Your task to perform on an android device: change alarm snooze length Image 0: 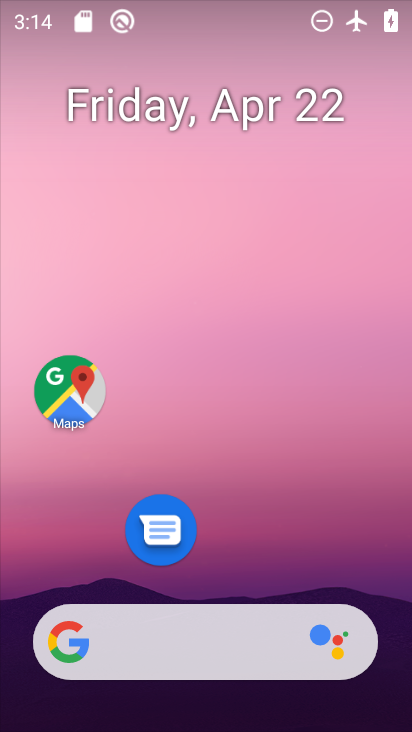
Step 0: drag from (244, 554) to (256, 12)
Your task to perform on an android device: change alarm snooze length Image 1: 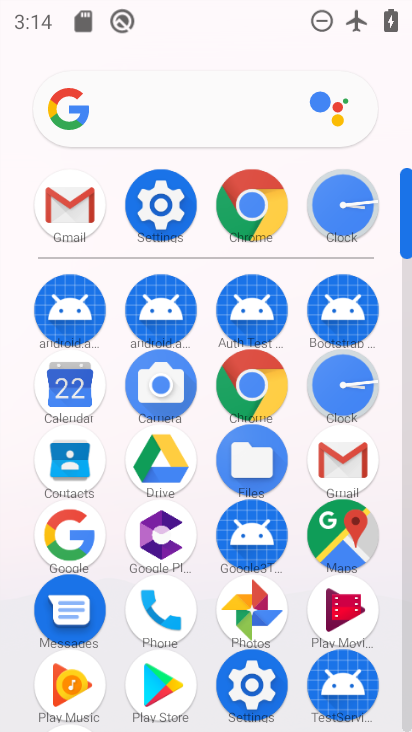
Step 1: click (344, 213)
Your task to perform on an android device: change alarm snooze length Image 2: 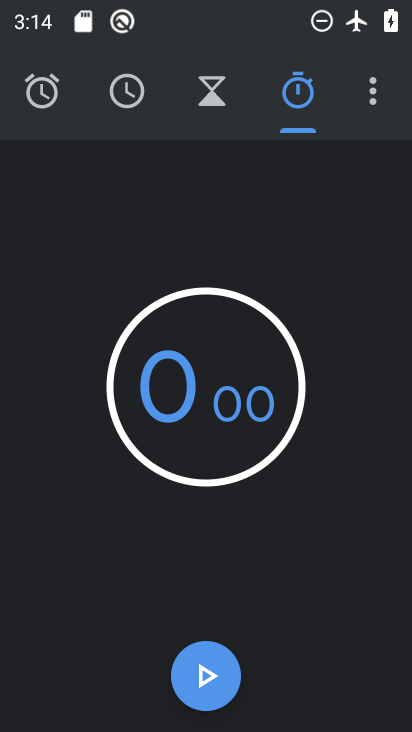
Step 2: click (371, 97)
Your task to perform on an android device: change alarm snooze length Image 3: 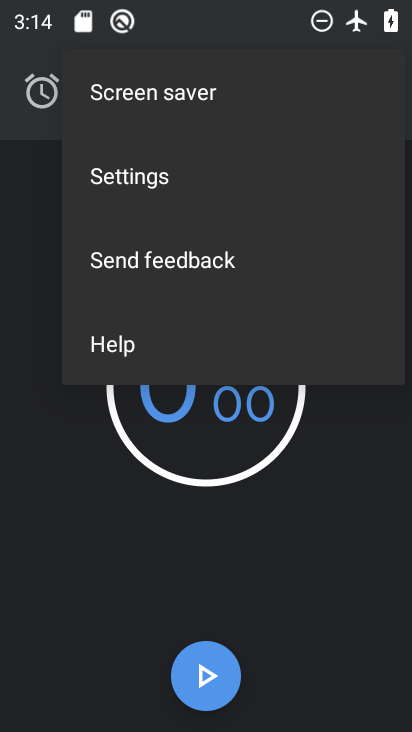
Step 3: click (130, 174)
Your task to perform on an android device: change alarm snooze length Image 4: 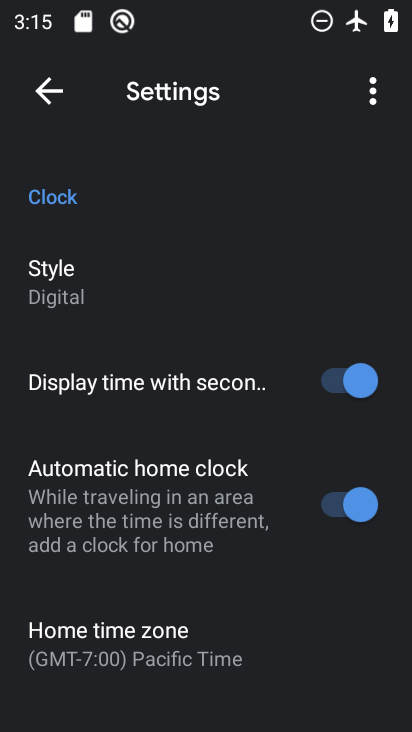
Step 4: drag from (187, 586) to (176, 199)
Your task to perform on an android device: change alarm snooze length Image 5: 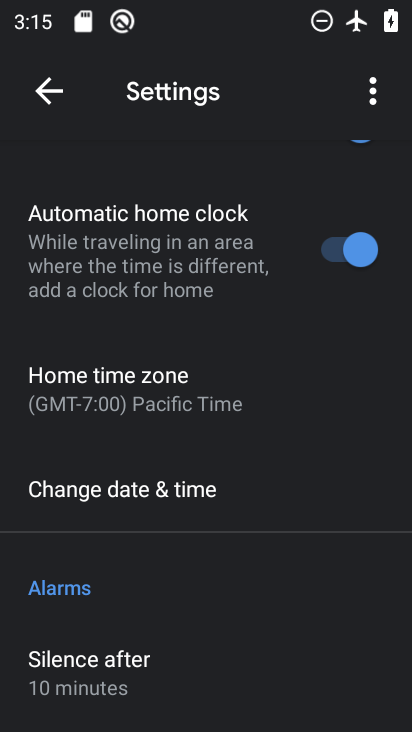
Step 5: drag from (133, 508) to (81, 161)
Your task to perform on an android device: change alarm snooze length Image 6: 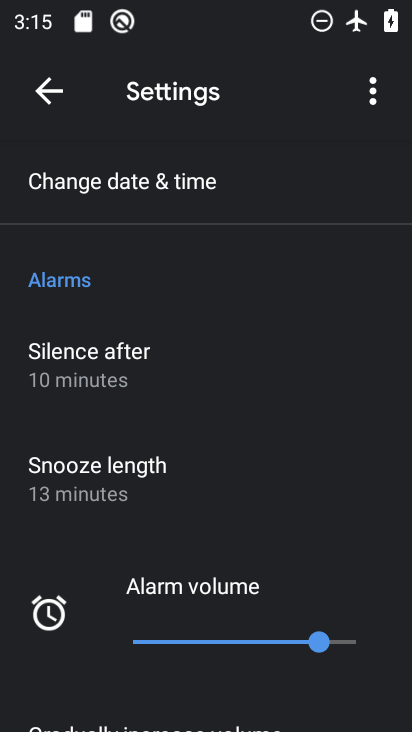
Step 6: click (81, 460)
Your task to perform on an android device: change alarm snooze length Image 7: 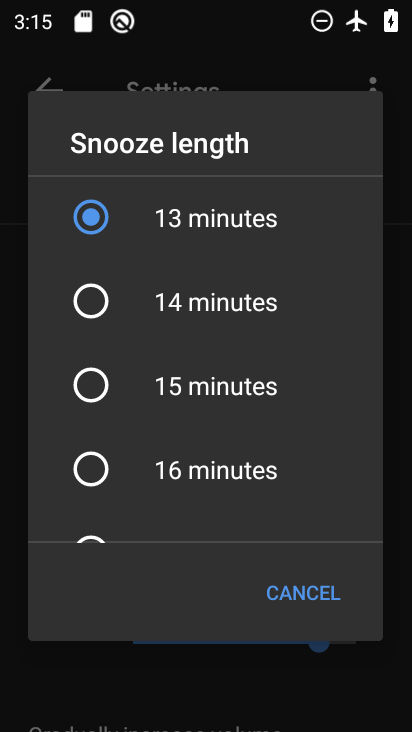
Step 7: click (94, 304)
Your task to perform on an android device: change alarm snooze length Image 8: 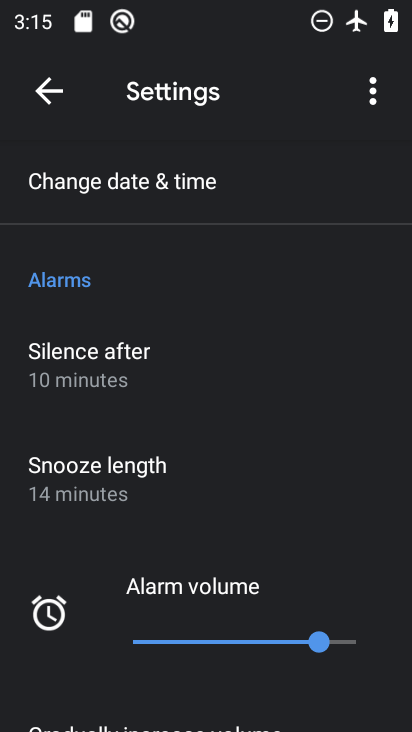
Step 8: task complete